Your task to perform on an android device: Open calendar and show me the third week of next month Image 0: 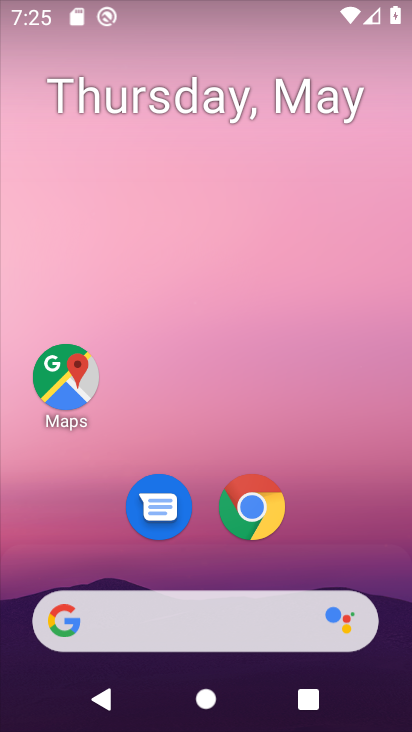
Step 0: drag from (341, 571) to (311, 0)
Your task to perform on an android device: Open calendar and show me the third week of next month Image 1: 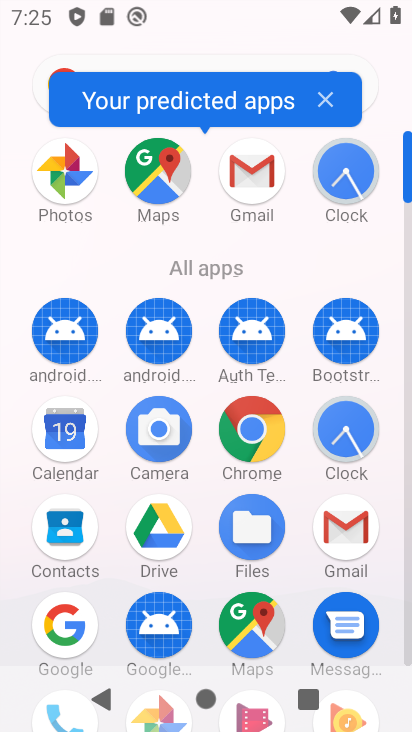
Step 1: click (72, 431)
Your task to perform on an android device: Open calendar and show me the third week of next month Image 2: 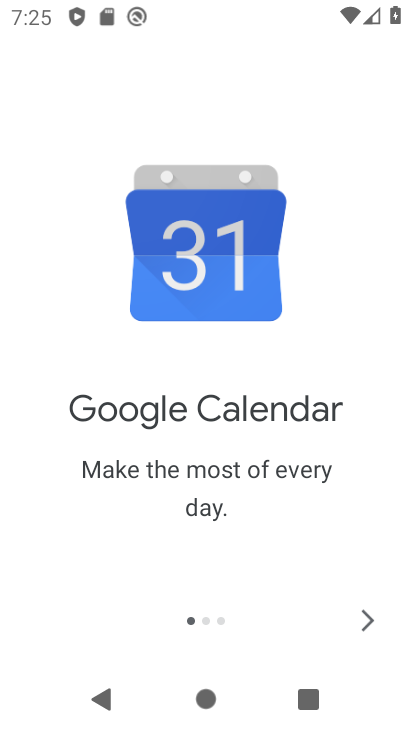
Step 2: click (352, 623)
Your task to perform on an android device: Open calendar and show me the third week of next month Image 3: 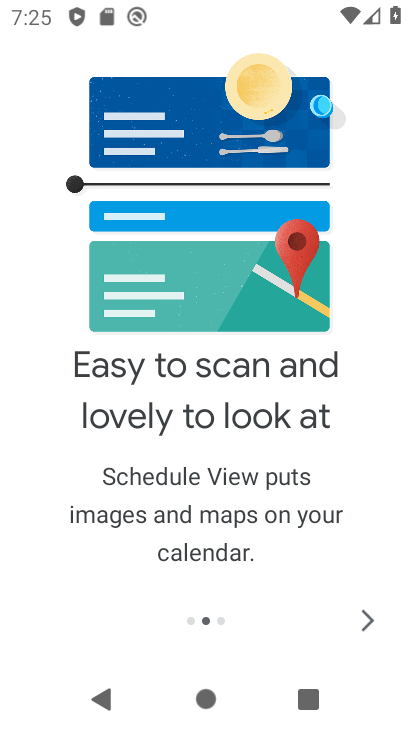
Step 3: click (352, 623)
Your task to perform on an android device: Open calendar and show me the third week of next month Image 4: 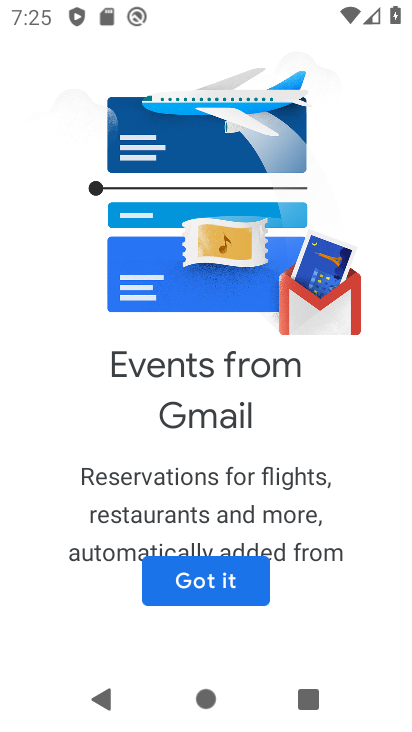
Step 4: click (239, 582)
Your task to perform on an android device: Open calendar and show me the third week of next month Image 5: 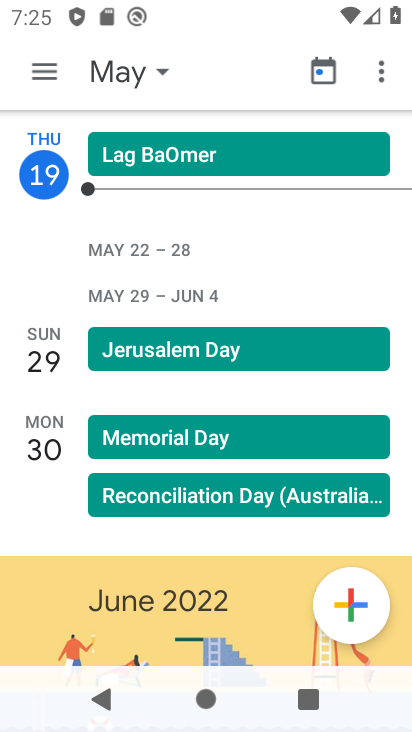
Step 5: click (152, 86)
Your task to perform on an android device: Open calendar and show me the third week of next month Image 6: 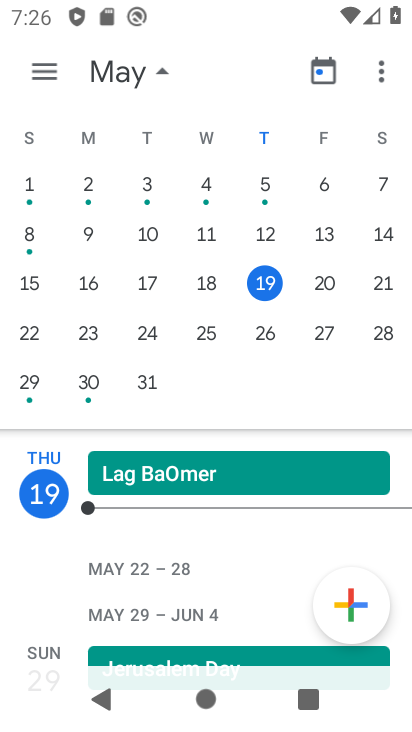
Step 6: drag from (379, 288) to (19, 309)
Your task to perform on an android device: Open calendar and show me the third week of next month Image 7: 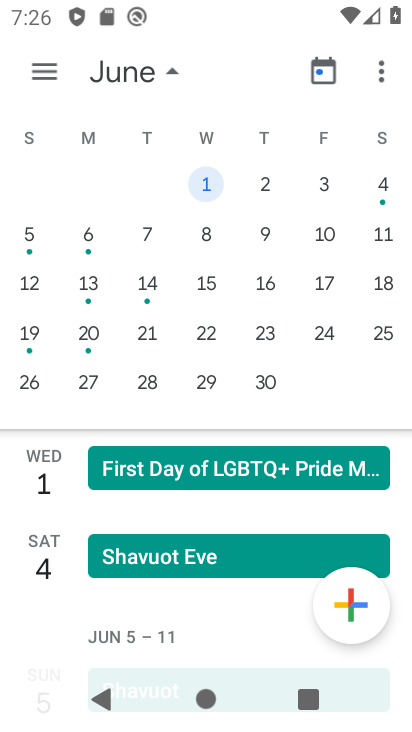
Step 7: click (148, 331)
Your task to perform on an android device: Open calendar and show me the third week of next month Image 8: 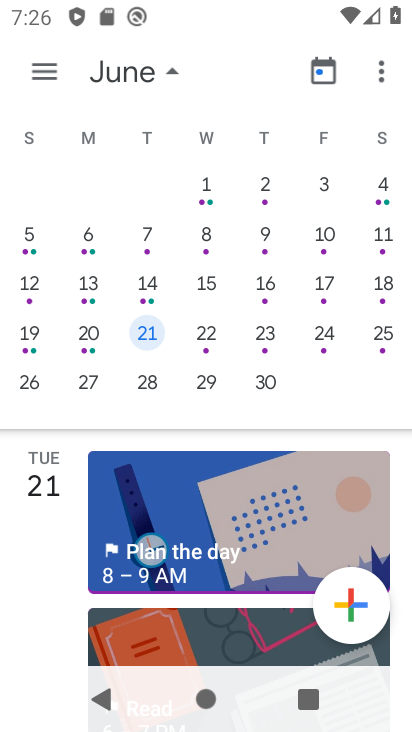
Step 8: task complete